Your task to perform on an android device: toggle wifi Image 0: 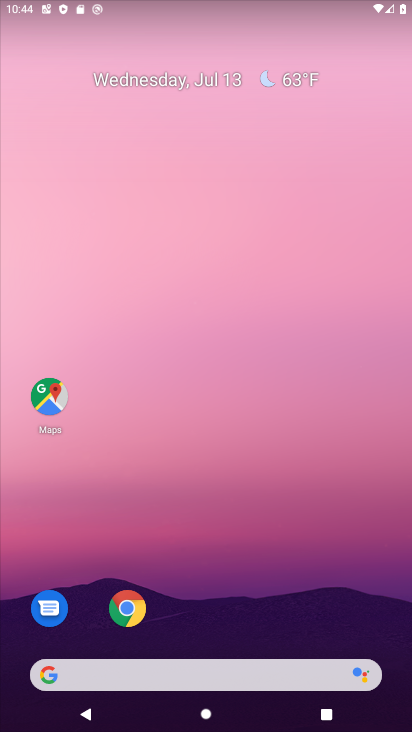
Step 0: drag from (198, 2) to (109, 591)
Your task to perform on an android device: toggle wifi Image 1: 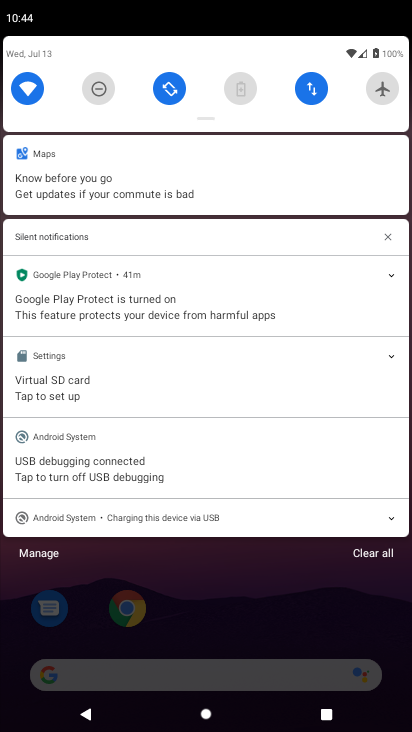
Step 1: click (36, 86)
Your task to perform on an android device: toggle wifi Image 2: 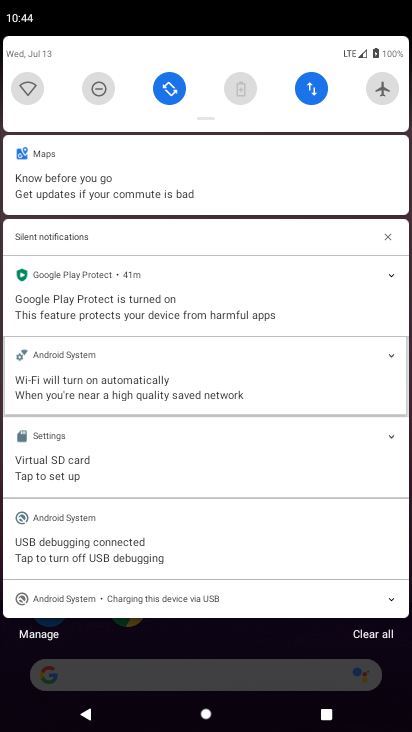
Step 2: task complete